Your task to perform on an android device: Go to Android settings Image 0: 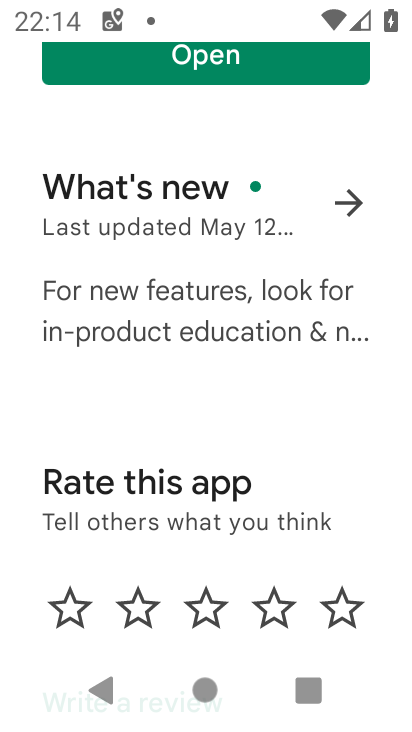
Step 0: press home button
Your task to perform on an android device: Go to Android settings Image 1: 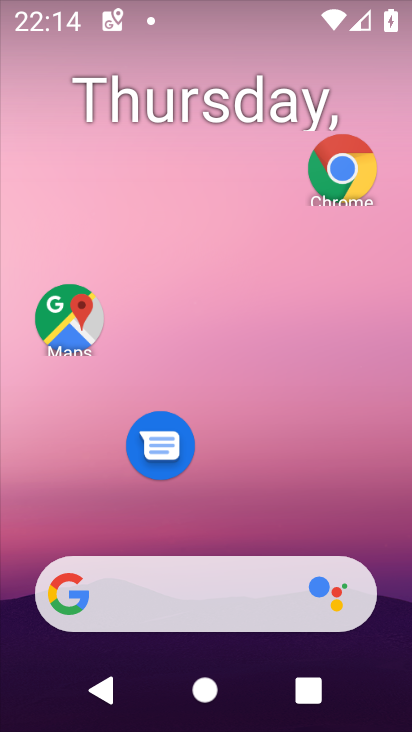
Step 1: drag from (218, 536) to (210, 92)
Your task to perform on an android device: Go to Android settings Image 2: 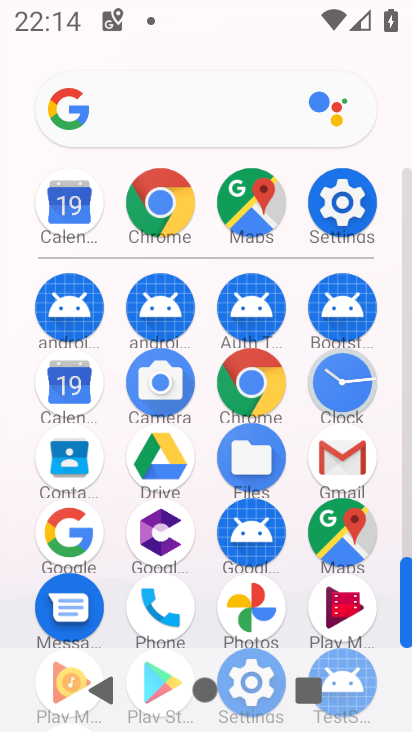
Step 2: click (339, 208)
Your task to perform on an android device: Go to Android settings Image 3: 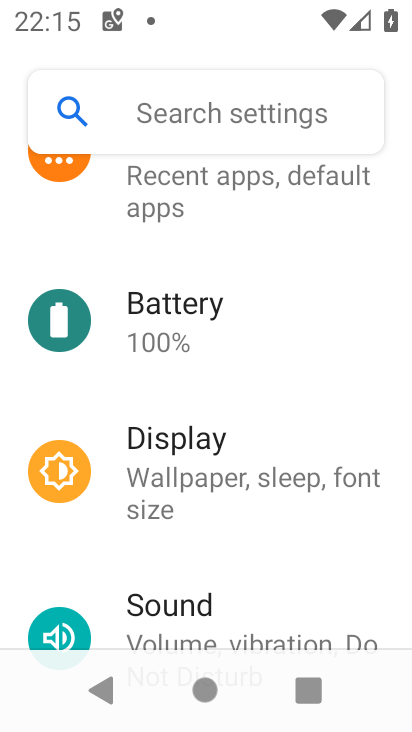
Step 3: drag from (233, 607) to (198, 165)
Your task to perform on an android device: Go to Android settings Image 4: 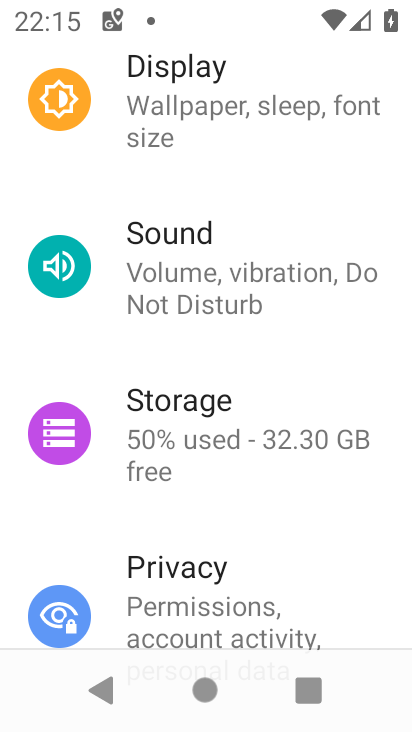
Step 4: drag from (226, 533) to (225, 196)
Your task to perform on an android device: Go to Android settings Image 5: 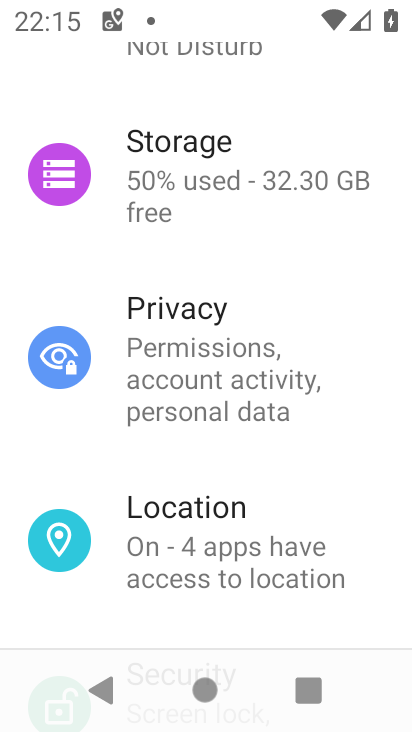
Step 5: drag from (240, 556) to (253, 98)
Your task to perform on an android device: Go to Android settings Image 6: 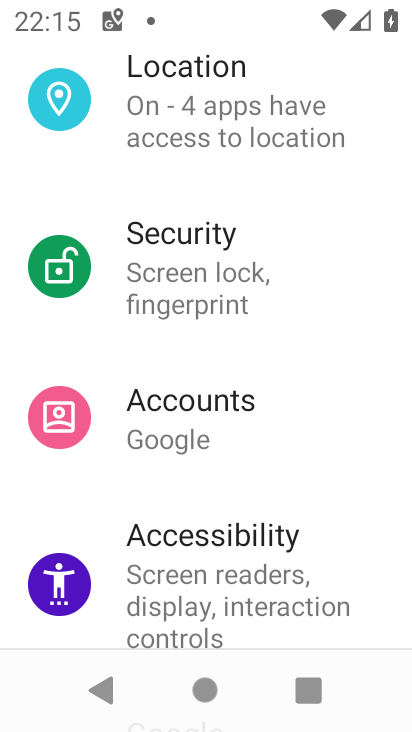
Step 6: drag from (267, 592) to (222, 117)
Your task to perform on an android device: Go to Android settings Image 7: 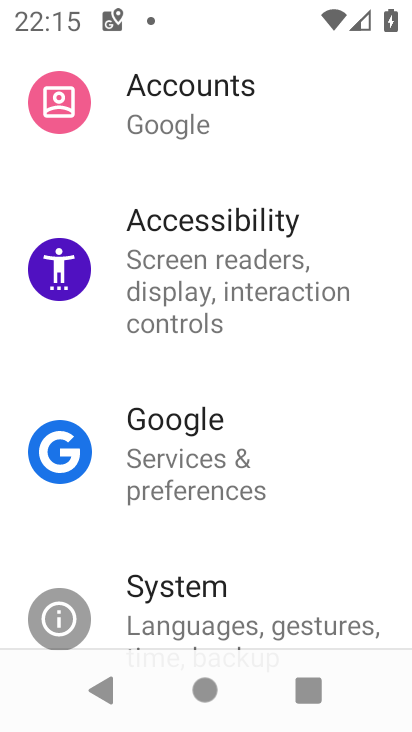
Step 7: drag from (236, 611) to (277, 192)
Your task to perform on an android device: Go to Android settings Image 8: 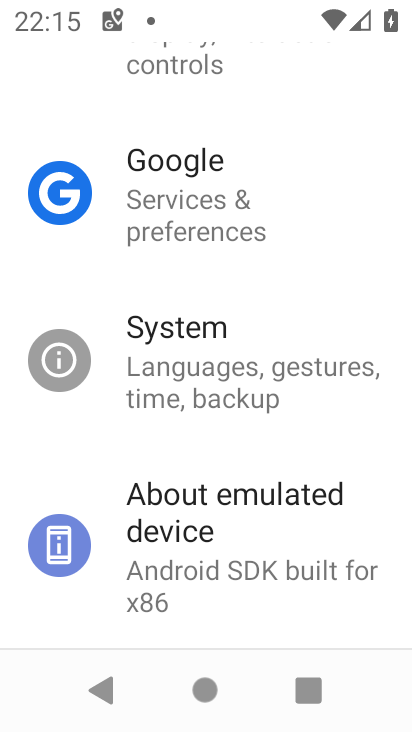
Step 8: drag from (231, 562) to (298, 292)
Your task to perform on an android device: Go to Android settings Image 9: 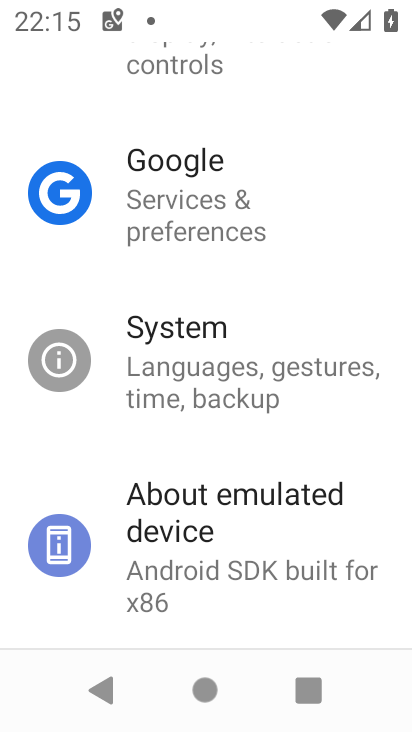
Step 9: click (227, 507)
Your task to perform on an android device: Go to Android settings Image 10: 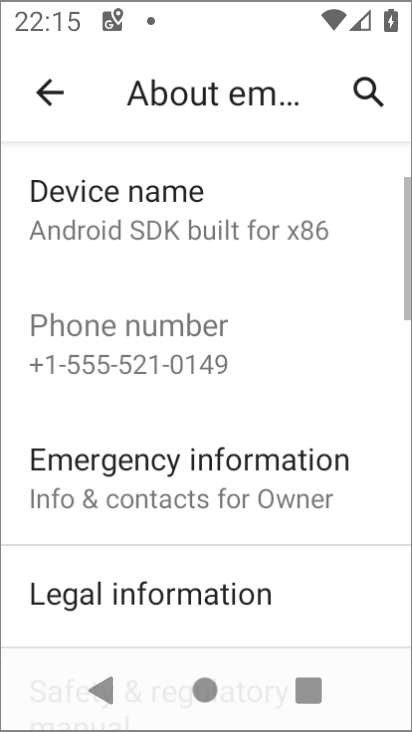
Step 10: drag from (227, 507) to (264, 148)
Your task to perform on an android device: Go to Android settings Image 11: 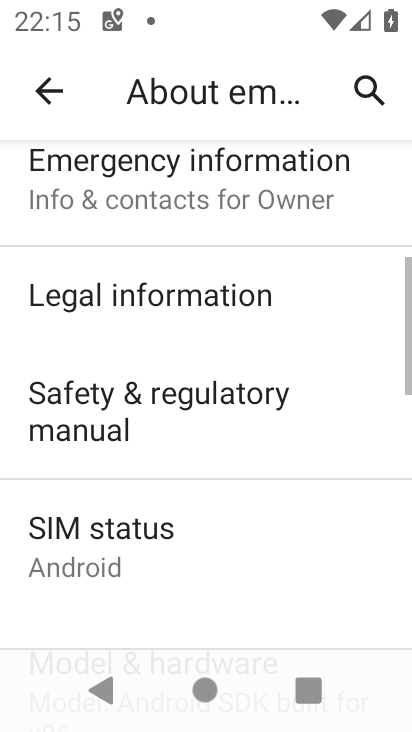
Step 11: drag from (181, 320) to (294, 697)
Your task to perform on an android device: Go to Android settings Image 12: 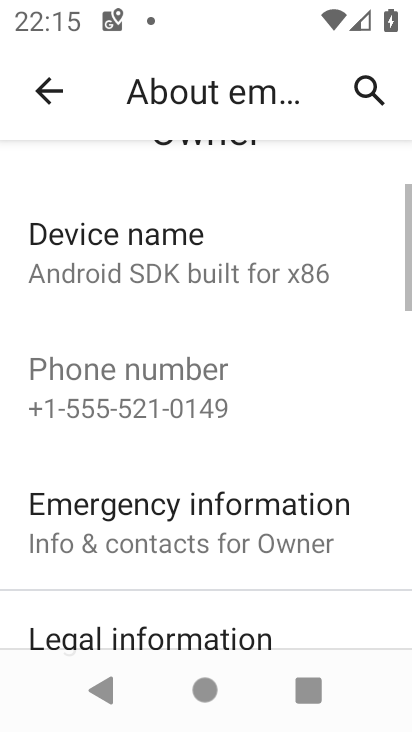
Step 12: drag from (164, 328) to (284, 656)
Your task to perform on an android device: Go to Android settings Image 13: 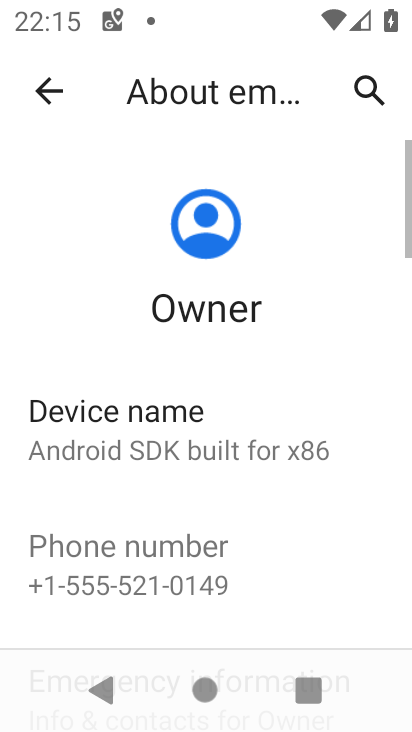
Step 13: drag from (174, 460) to (253, 129)
Your task to perform on an android device: Go to Android settings Image 14: 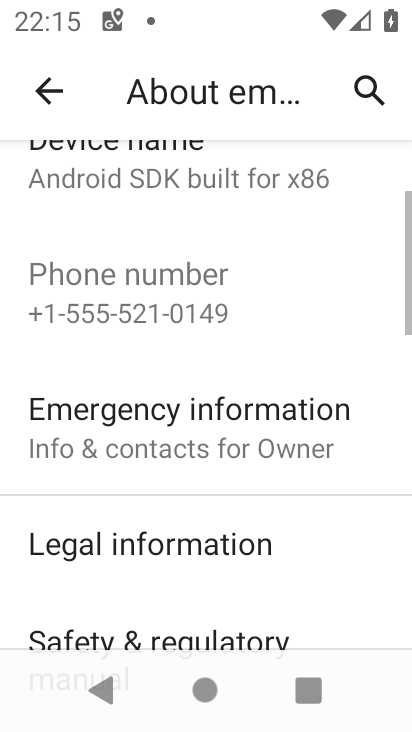
Step 14: drag from (253, 548) to (291, 176)
Your task to perform on an android device: Go to Android settings Image 15: 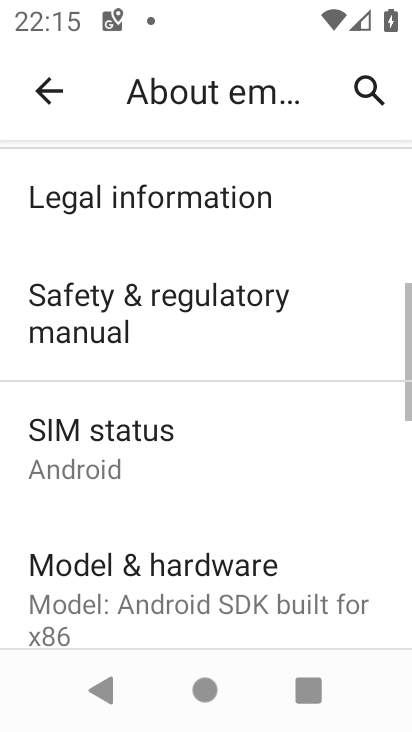
Step 15: drag from (236, 549) to (343, 236)
Your task to perform on an android device: Go to Android settings Image 16: 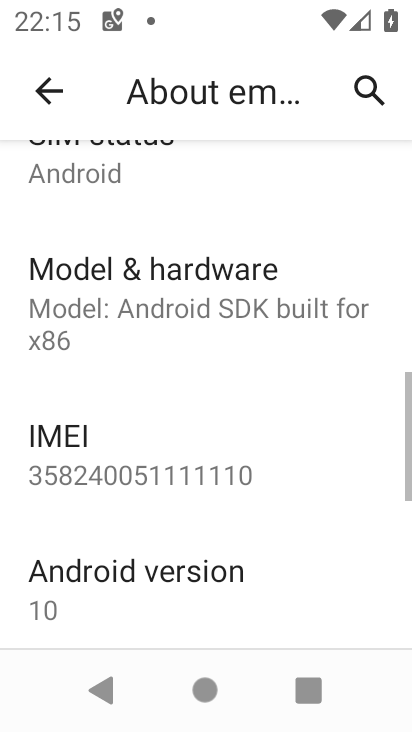
Step 16: click (164, 585)
Your task to perform on an android device: Go to Android settings Image 17: 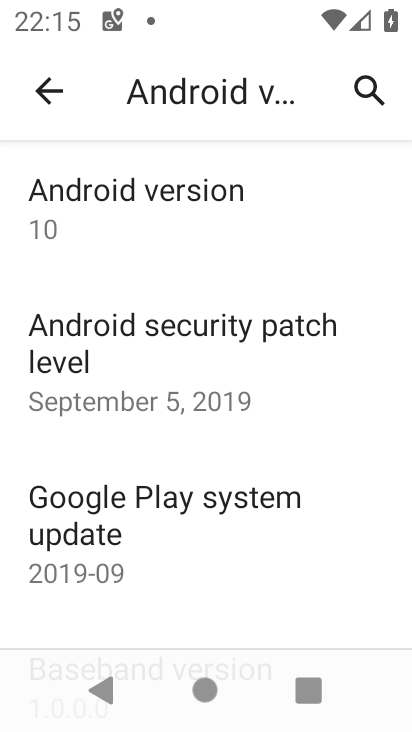
Step 17: task complete